Your task to perform on an android device: Go to internet settings Image 0: 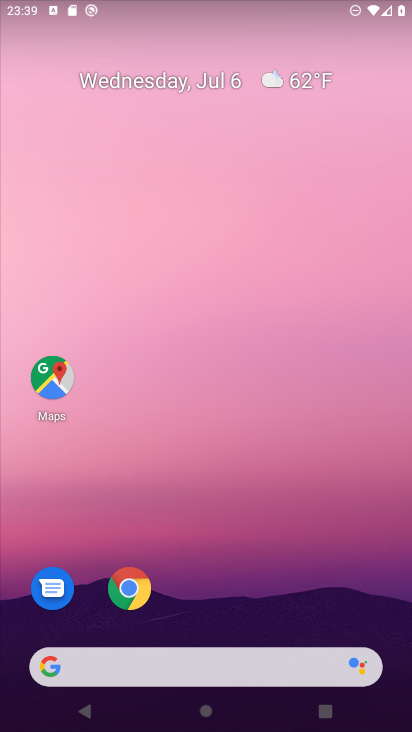
Step 0: drag from (368, 619) to (323, 185)
Your task to perform on an android device: Go to internet settings Image 1: 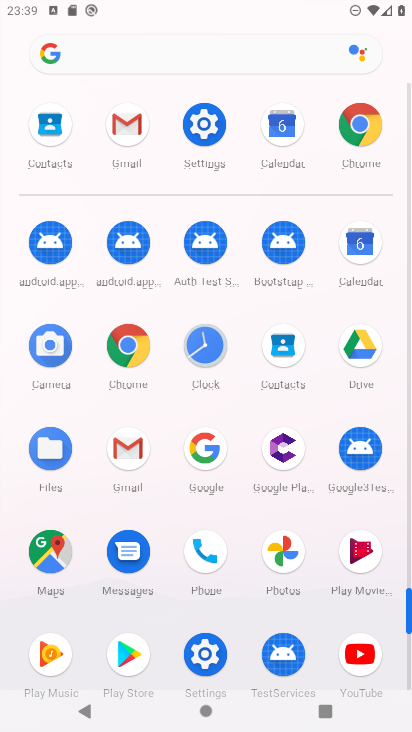
Step 1: click (202, 655)
Your task to perform on an android device: Go to internet settings Image 2: 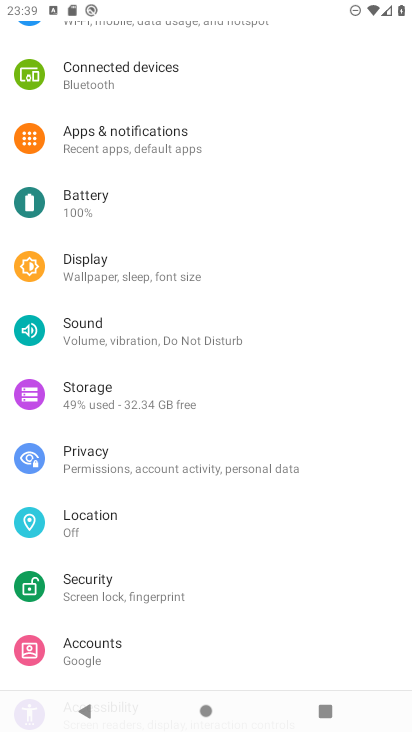
Step 2: drag from (287, 185) to (296, 521)
Your task to perform on an android device: Go to internet settings Image 3: 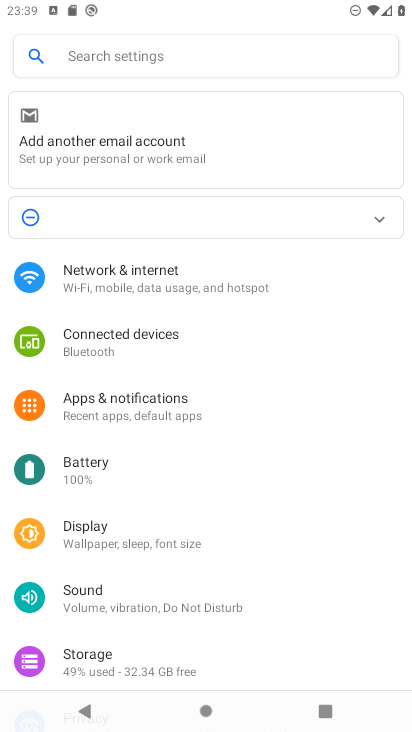
Step 3: click (98, 278)
Your task to perform on an android device: Go to internet settings Image 4: 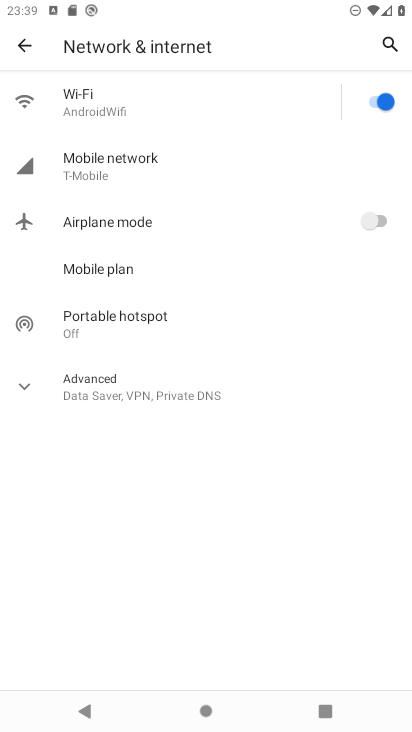
Step 4: click (85, 97)
Your task to perform on an android device: Go to internet settings Image 5: 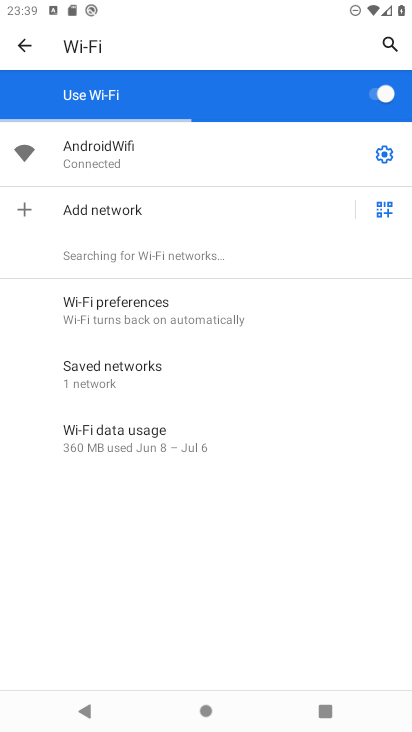
Step 5: task complete